Your task to perform on an android device: turn off translation in the chrome app Image 0: 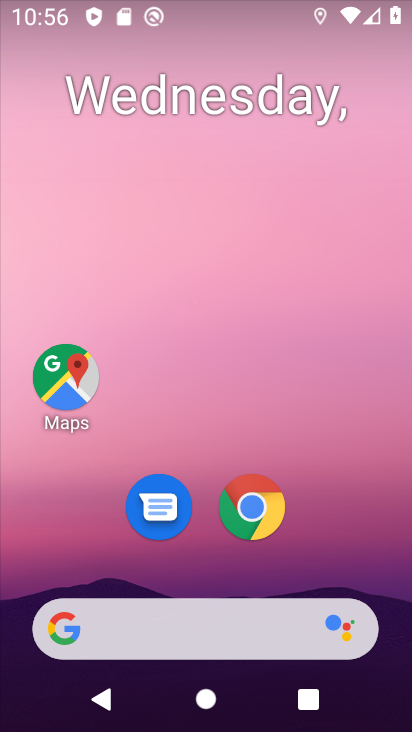
Step 0: drag from (346, 530) to (387, 68)
Your task to perform on an android device: turn off translation in the chrome app Image 1: 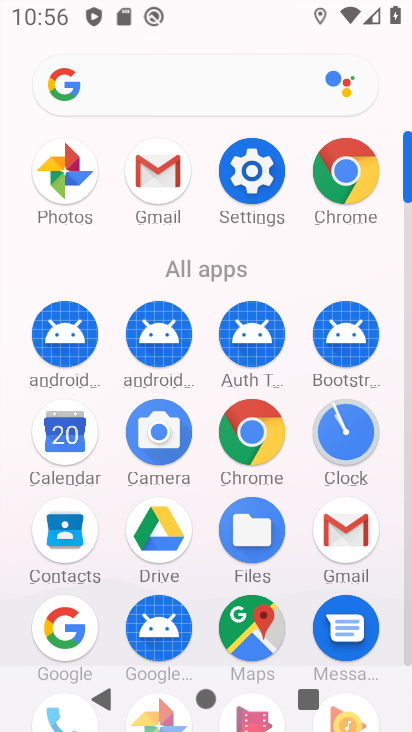
Step 1: click (245, 443)
Your task to perform on an android device: turn off translation in the chrome app Image 2: 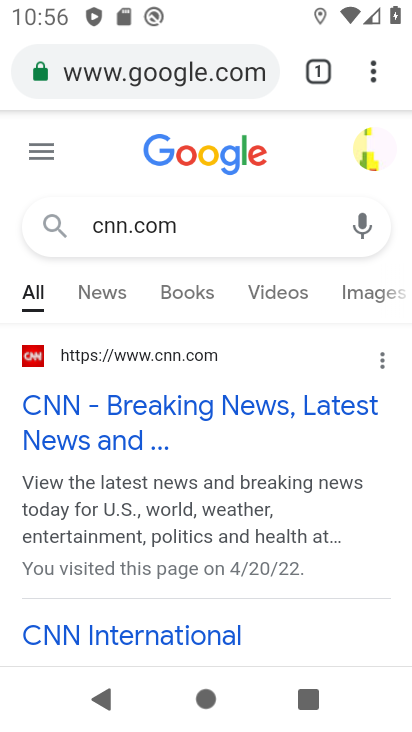
Step 2: click (375, 67)
Your task to perform on an android device: turn off translation in the chrome app Image 3: 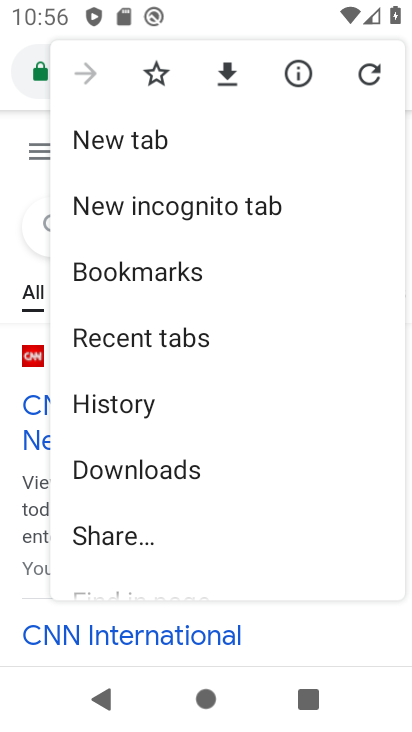
Step 3: drag from (324, 486) to (315, 258)
Your task to perform on an android device: turn off translation in the chrome app Image 4: 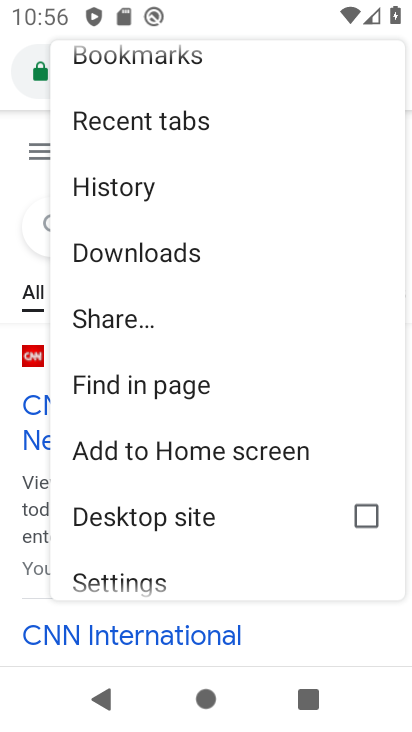
Step 4: drag from (261, 508) to (281, 313)
Your task to perform on an android device: turn off translation in the chrome app Image 5: 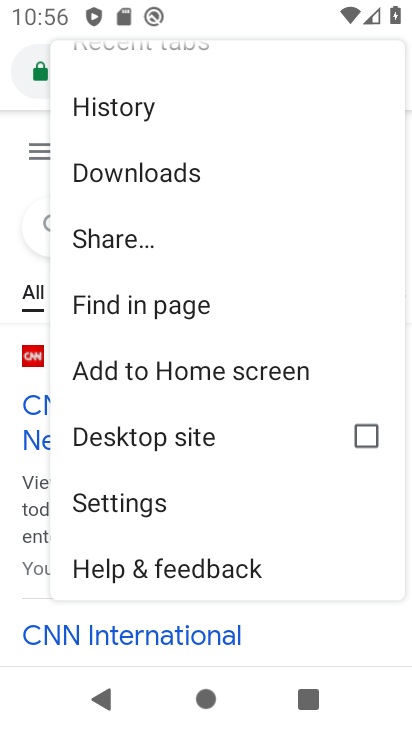
Step 5: click (155, 508)
Your task to perform on an android device: turn off translation in the chrome app Image 6: 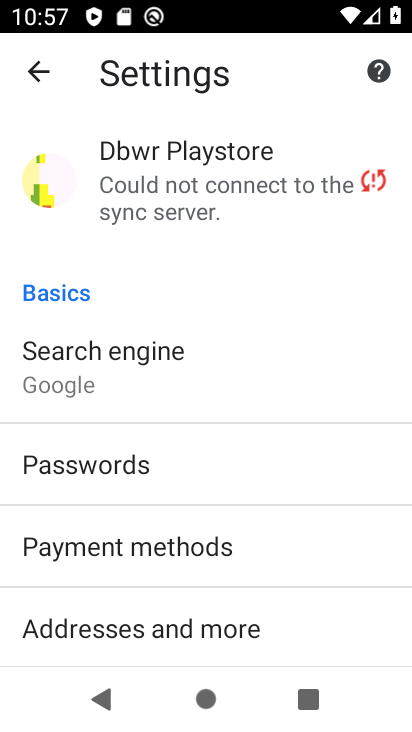
Step 6: drag from (307, 583) to (333, 384)
Your task to perform on an android device: turn off translation in the chrome app Image 7: 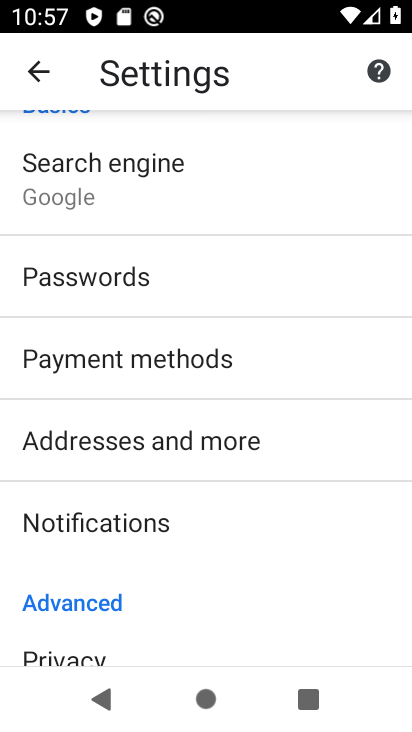
Step 7: drag from (303, 582) to (312, 413)
Your task to perform on an android device: turn off translation in the chrome app Image 8: 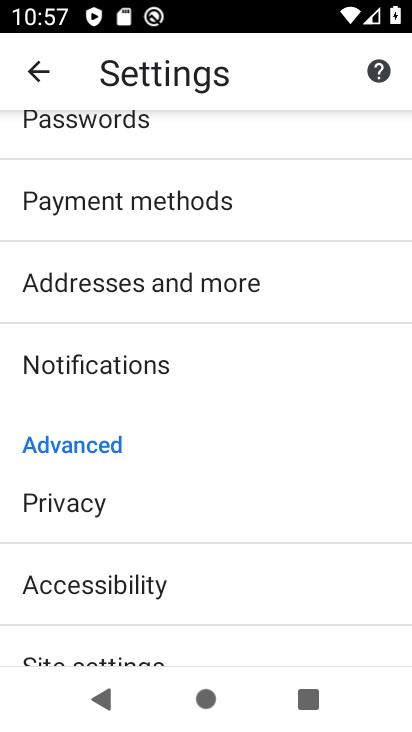
Step 8: drag from (306, 596) to (314, 416)
Your task to perform on an android device: turn off translation in the chrome app Image 9: 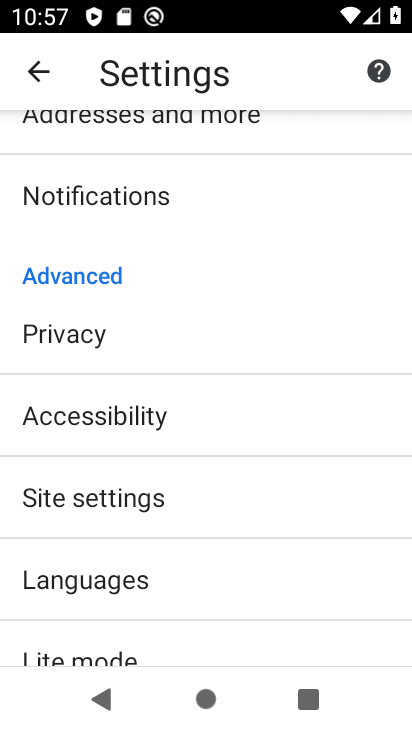
Step 9: drag from (319, 565) to (330, 419)
Your task to perform on an android device: turn off translation in the chrome app Image 10: 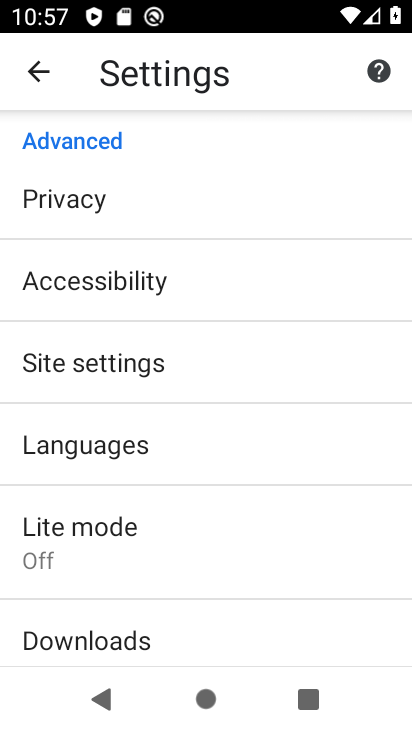
Step 10: drag from (310, 558) to (316, 405)
Your task to perform on an android device: turn off translation in the chrome app Image 11: 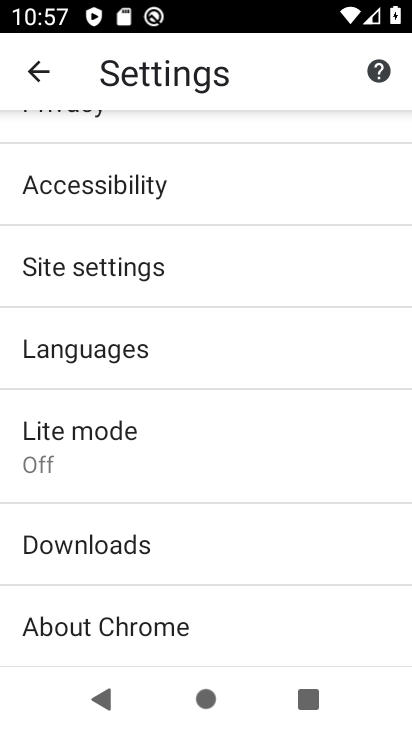
Step 11: drag from (303, 628) to (307, 482)
Your task to perform on an android device: turn off translation in the chrome app Image 12: 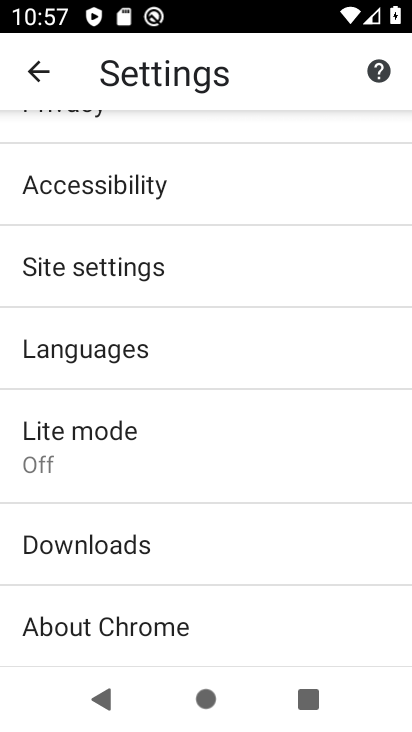
Step 12: click (153, 347)
Your task to perform on an android device: turn off translation in the chrome app Image 13: 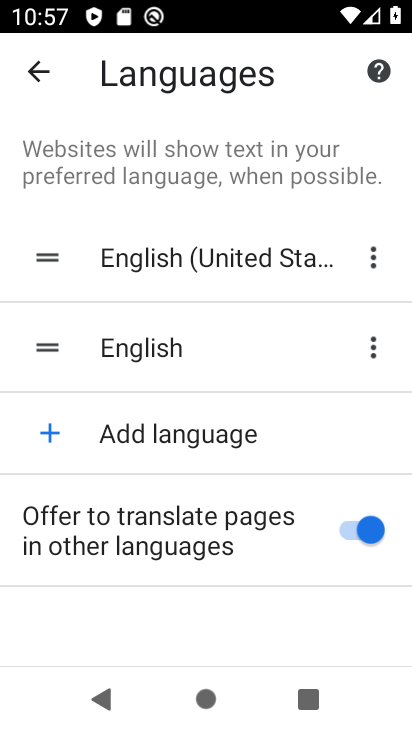
Step 13: click (359, 532)
Your task to perform on an android device: turn off translation in the chrome app Image 14: 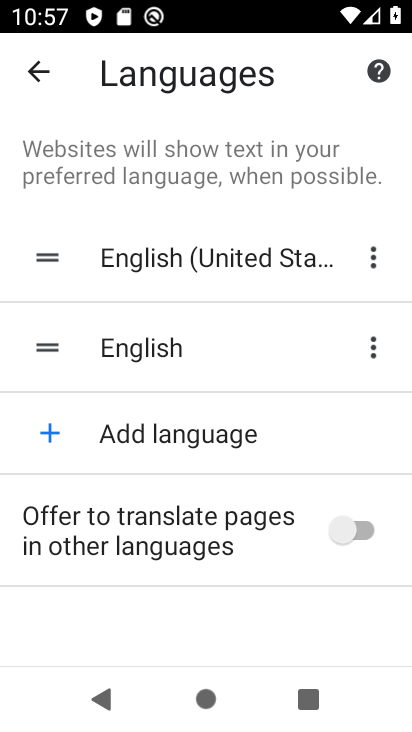
Step 14: task complete